Your task to perform on an android device: Show me popular videos on Youtube Image 0: 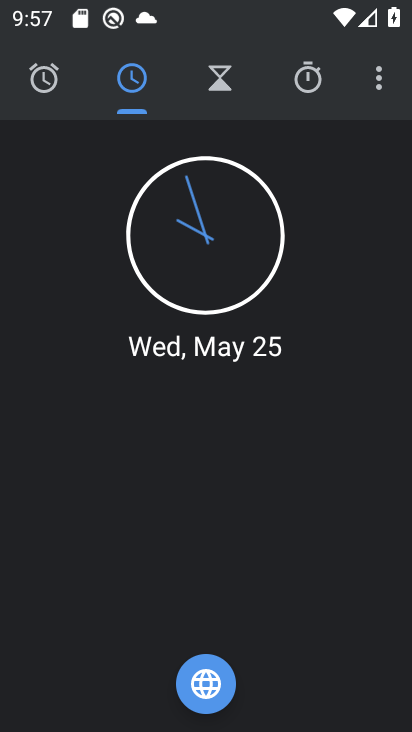
Step 0: press home button
Your task to perform on an android device: Show me popular videos on Youtube Image 1: 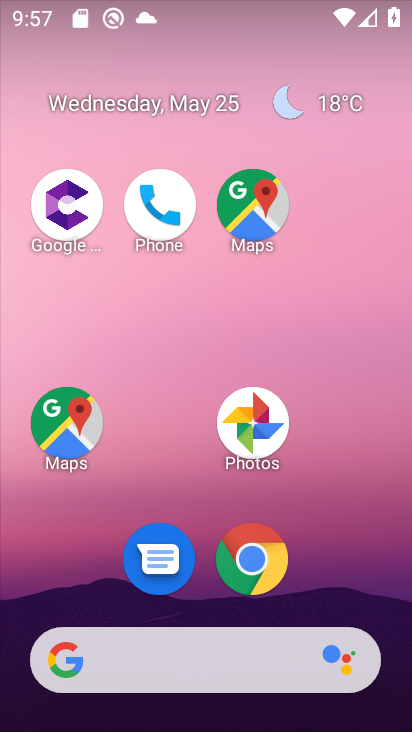
Step 1: drag from (329, 493) to (322, 6)
Your task to perform on an android device: Show me popular videos on Youtube Image 2: 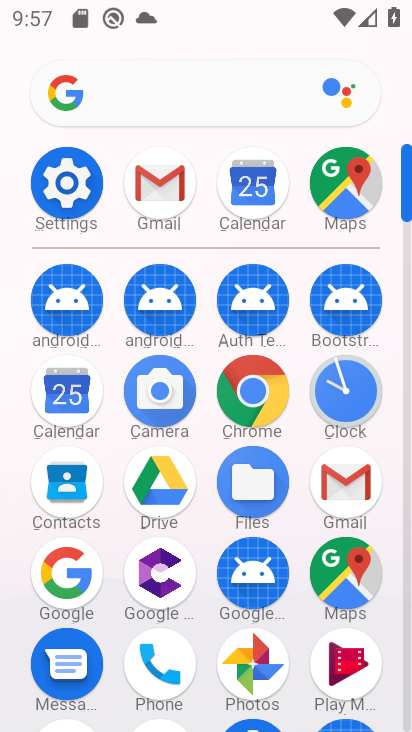
Step 2: drag from (297, 627) to (333, 171)
Your task to perform on an android device: Show me popular videos on Youtube Image 3: 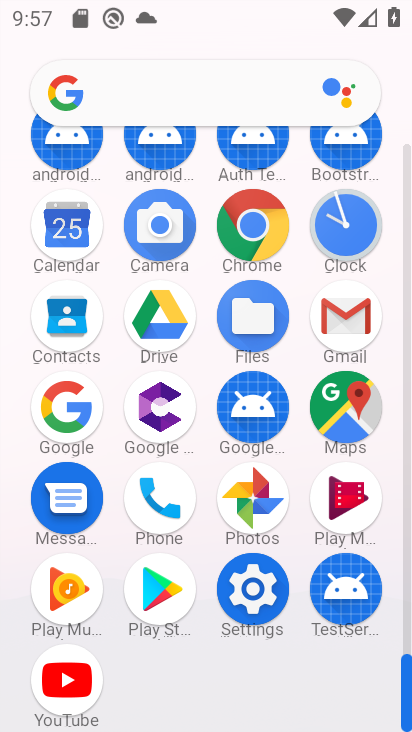
Step 3: click (67, 679)
Your task to perform on an android device: Show me popular videos on Youtube Image 4: 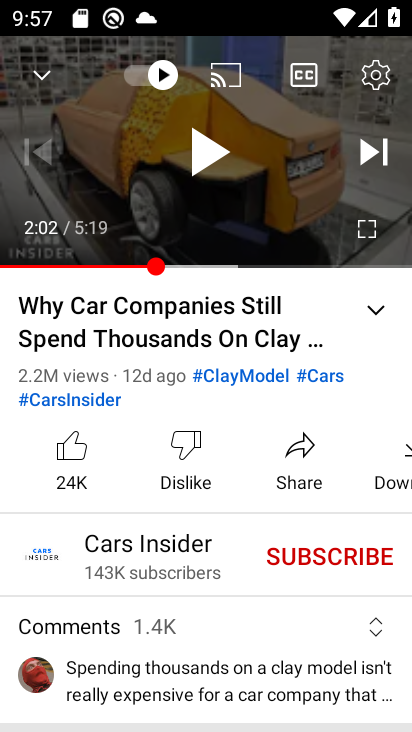
Step 4: click (51, 78)
Your task to perform on an android device: Show me popular videos on Youtube Image 5: 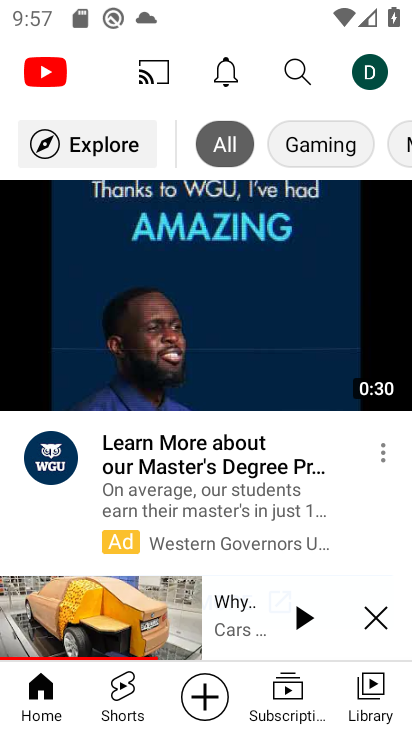
Step 5: click (373, 618)
Your task to perform on an android device: Show me popular videos on Youtube Image 6: 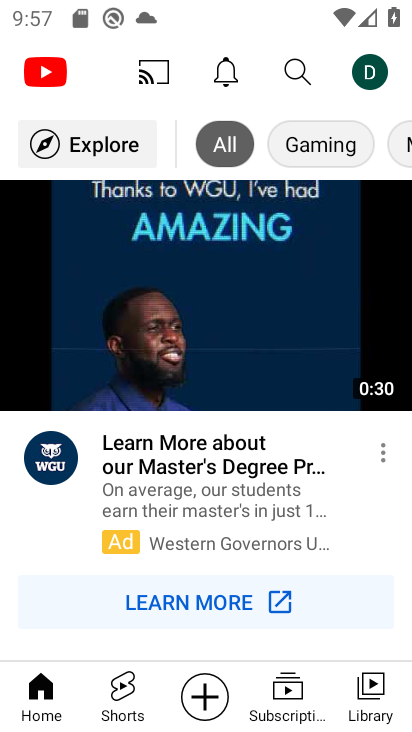
Step 6: click (294, 72)
Your task to perform on an android device: Show me popular videos on Youtube Image 7: 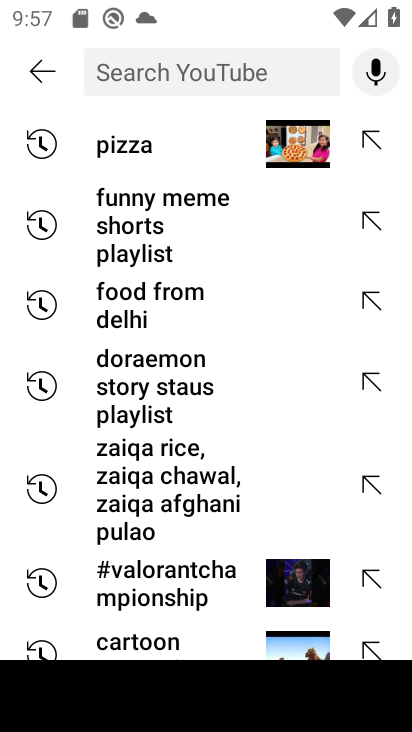
Step 7: type "popular videos on youtube"
Your task to perform on an android device: Show me popular videos on Youtube Image 8: 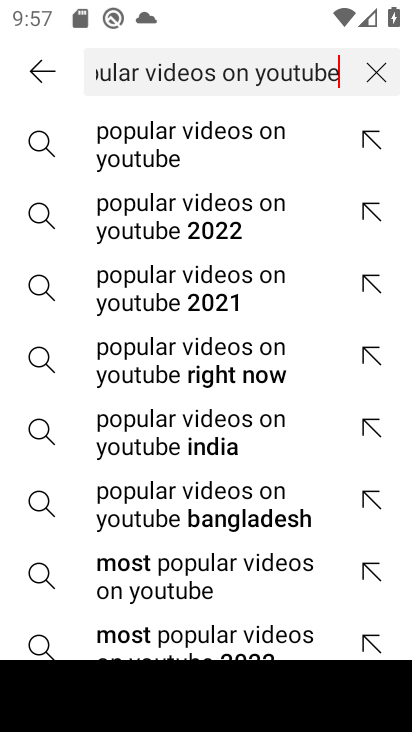
Step 8: click (211, 144)
Your task to perform on an android device: Show me popular videos on Youtube Image 9: 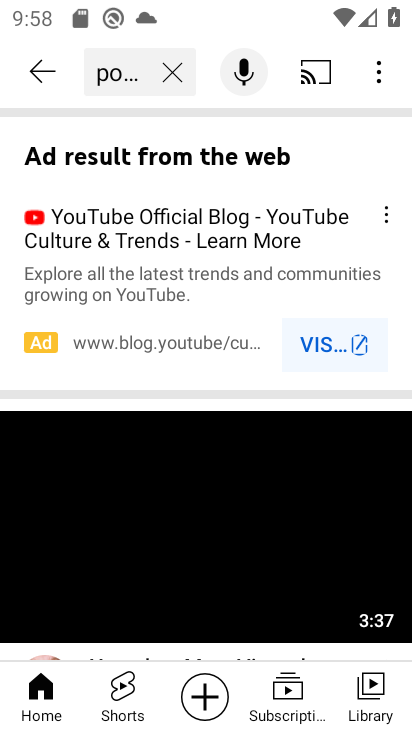
Step 9: task complete